Your task to perform on an android device: Open sound settings Image 0: 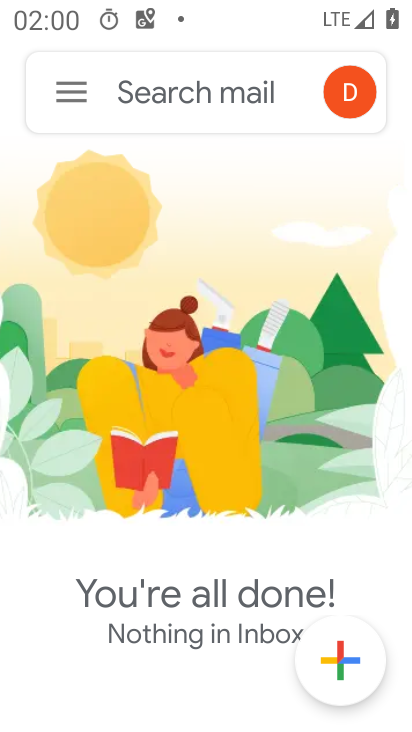
Step 0: click (69, 100)
Your task to perform on an android device: Open sound settings Image 1: 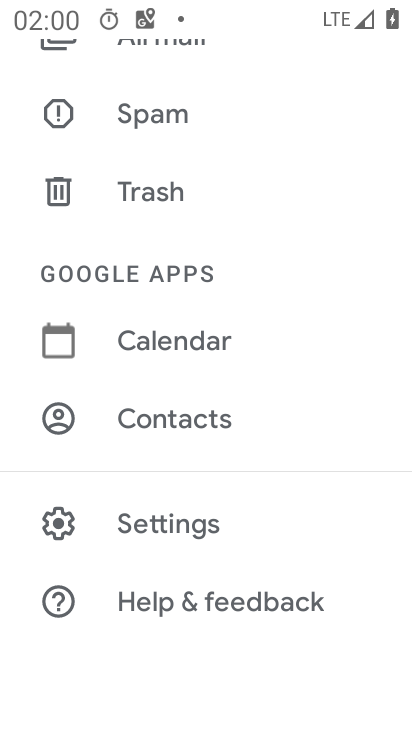
Step 1: press home button
Your task to perform on an android device: Open sound settings Image 2: 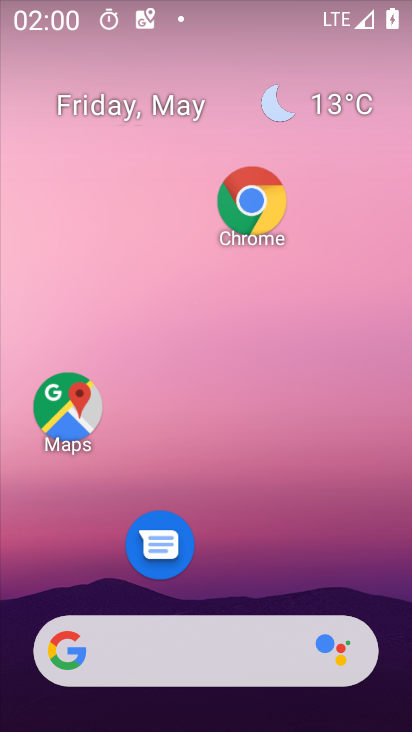
Step 2: drag from (153, 215) to (128, 113)
Your task to perform on an android device: Open sound settings Image 3: 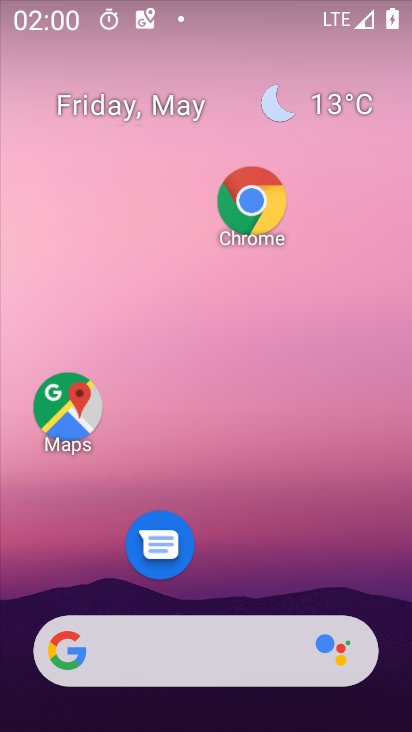
Step 3: drag from (217, 566) to (261, 221)
Your task to perform on an android device: Open sound settings Image 4: 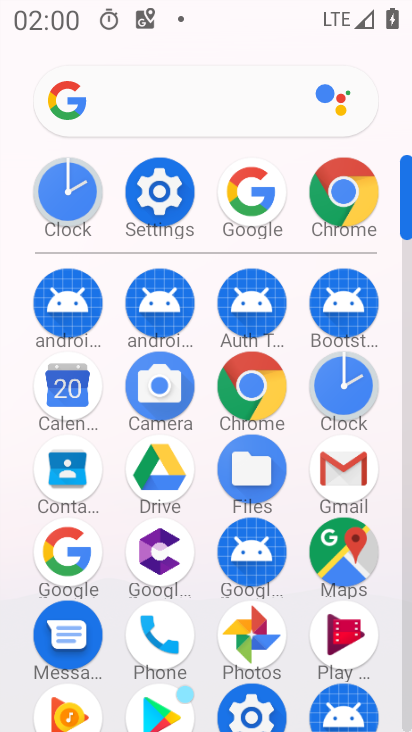
Step 4: click (156, 190)
Your task to perform on an android device: Open sound settings Image 5: 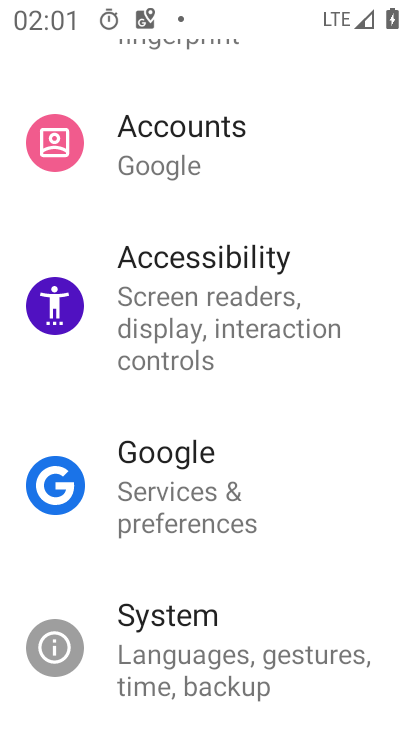
Step 5: drag from (193, 282) to (211, 610)
Your task to perform on an android device: Open sound settings Image 6: 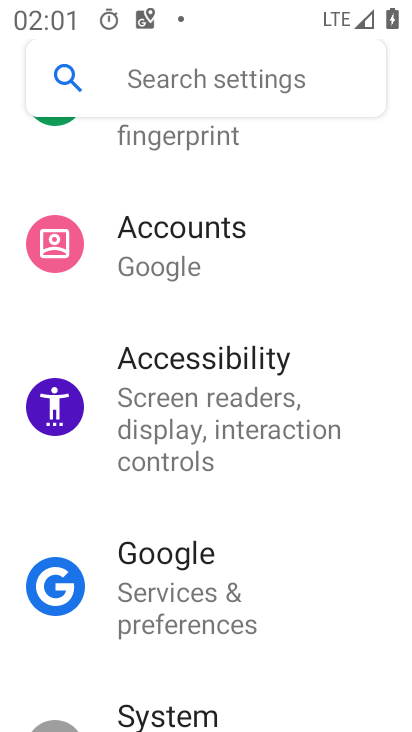
Step 6: drag from (186, 404) to (186, 588)
Your task to perform on an android device: Open sound settings Image 7: 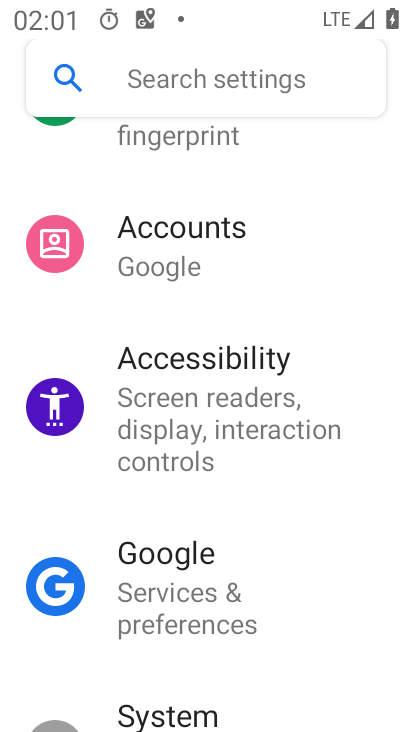
Step 7: drag from (194, 305) to (204, 457)
Your task to perform on an android device: Open sound settings Image 8: 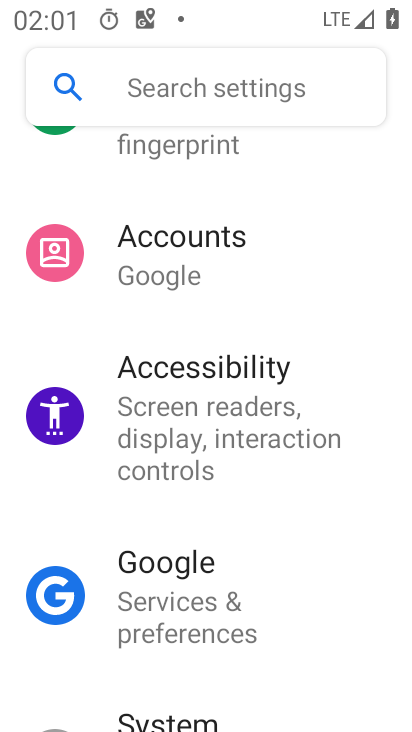
Step 8: drag from (196, 342) to (201, 551)
Your task to perform on an android device: Open sound settings Image 9: 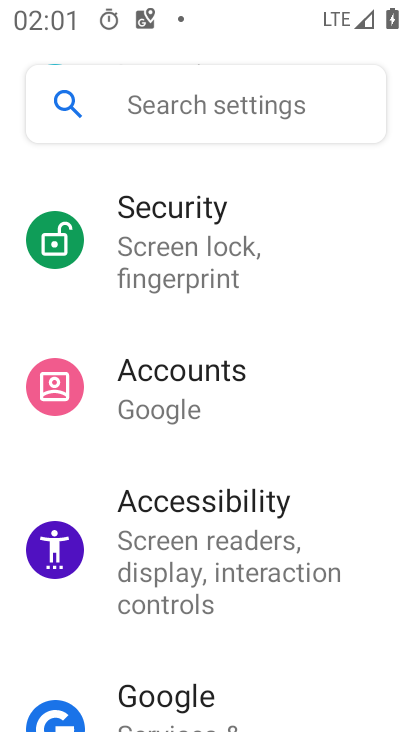
Step 9: drag from (220, 421) to (228, 469)
Your task to perform on an android device: Open sound settings Image 10: 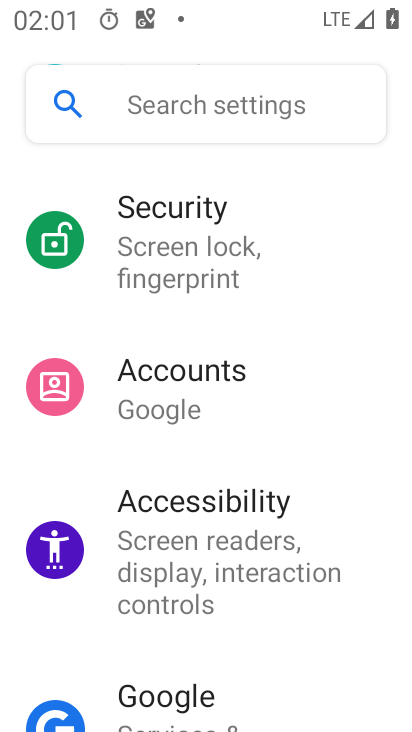
Step 10: drag from (220, 321) to (220, 612)
Your task to perform on an android device: Open sound settings Image 11: 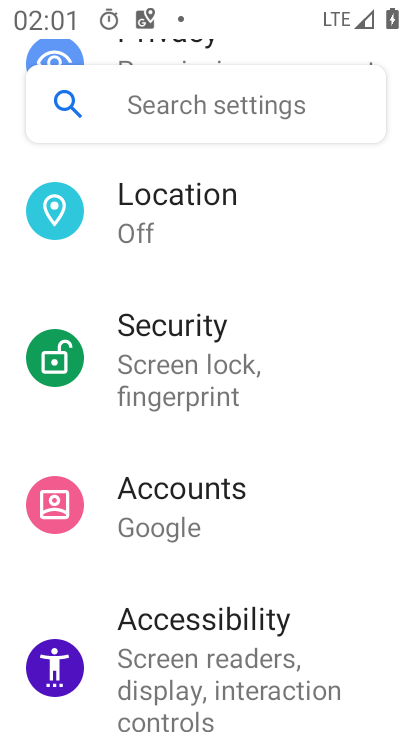
Step 11: drag from (176, 257) to (173, 489)
Your task to perform on an android device: Open sound settings Image 12: 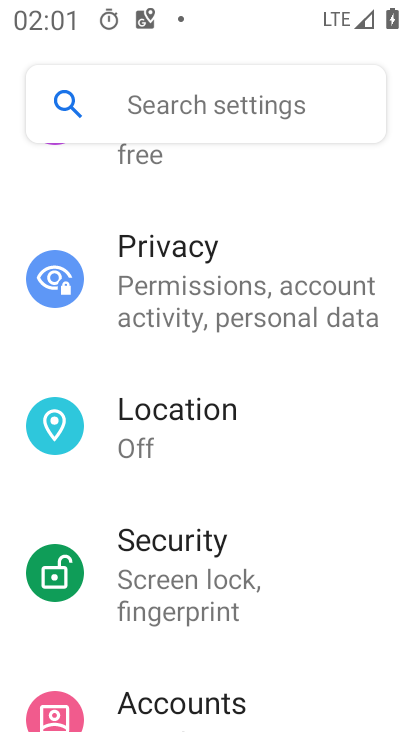
Step 12: click (189, 623)
Your task to perform on an android device: Open sound settings Image 13: 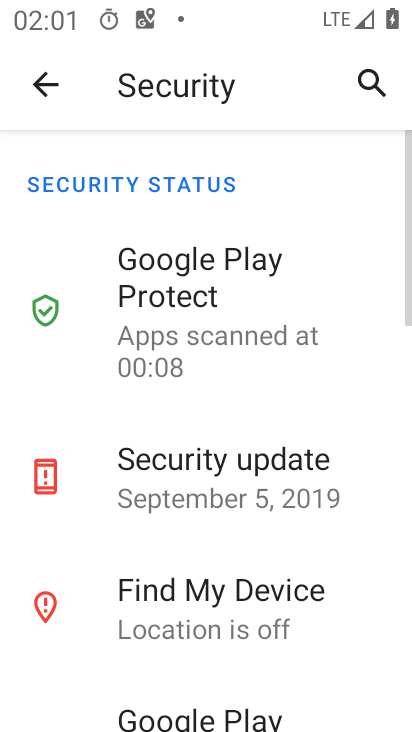
Step 13: click (37, 80)
Your task to perform on an android device: Open sound settings Image 14: 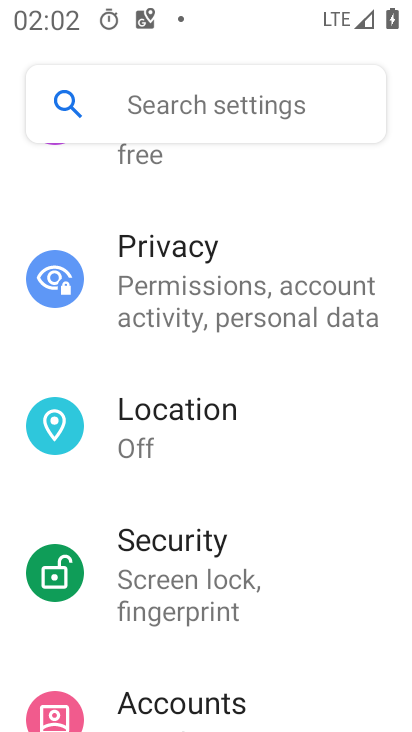
Step 14: drag from (185, 238) to (200, 450)
Your task to perform on an android device: Open sound settings Image 15: 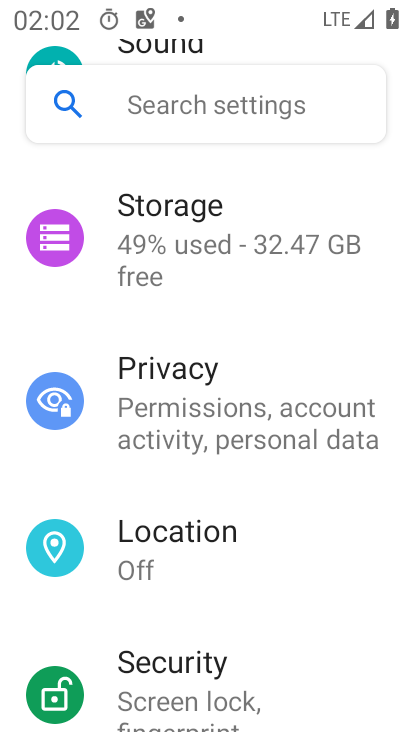
Step 15: click (203, 667)
Your task to perform on an android device: Open sound settings Image 16: 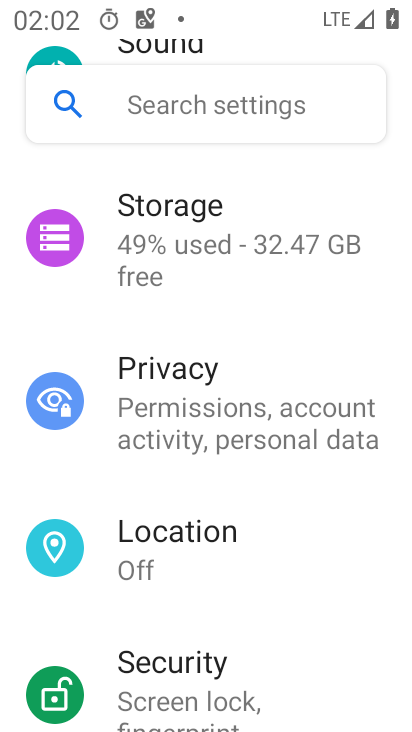
Step 16: click (241, 611)
Your task to perform on an android device: Open sound settings Image 17: 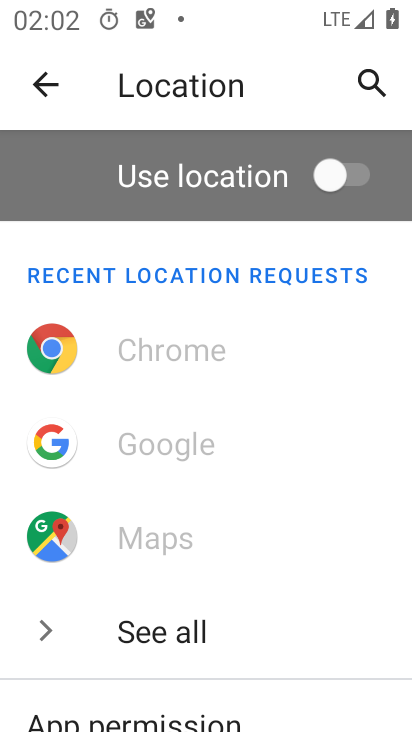
Step 17: click (31, 88)
Your task to perform on an android device: Open sound settings Image 18: 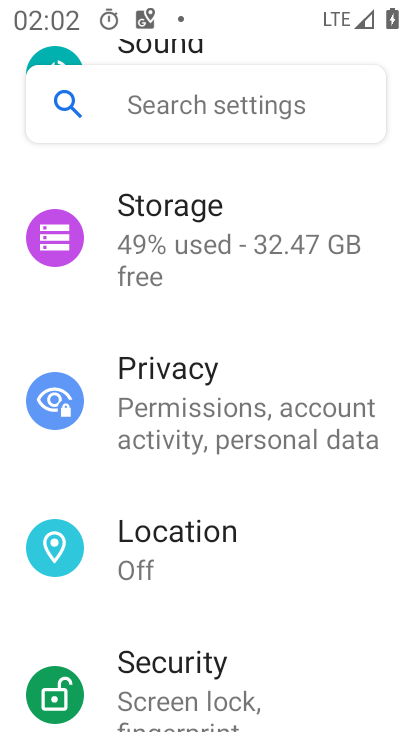
Step 18: drag from (202, 213) to (208, 598)
Your task to perform on an android device: Open sound settings Image 19: 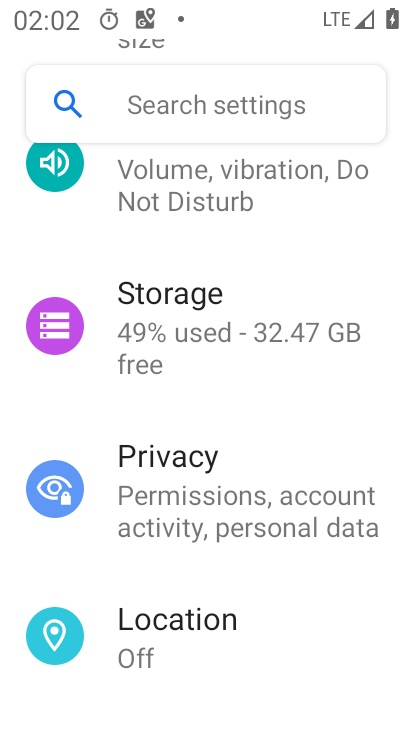
Step 19: drag from (240, 315) to (261, 518)
Your task to perform on an android device: Open sound settings Image 20: 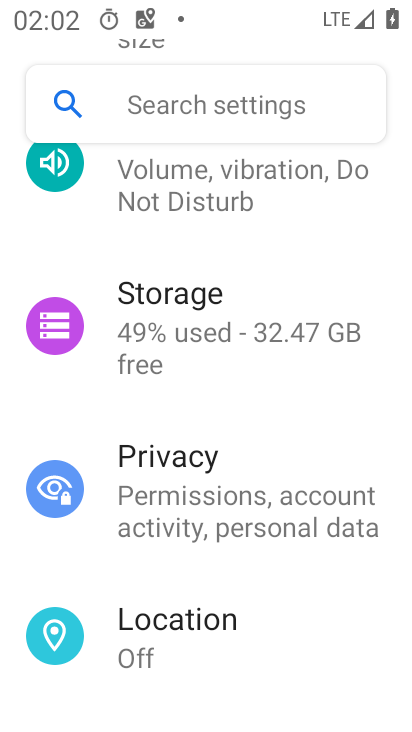
Step 20: drag from (274, 288) to (279, 510)
Your task to perform on an android device: Open sound settings Image 21: 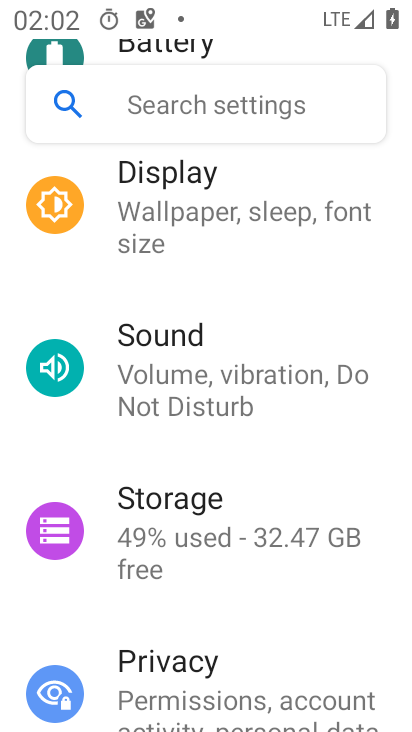
Step 21: drag from (272, 359) to (282, 508)
Your task to perform on an android device: Open sound settings Image 22: 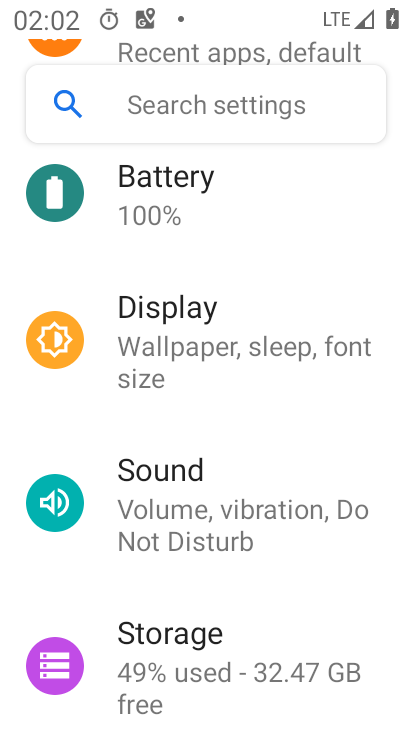
Step 22: drag from (265, 295) to (276, 379)
Your task to perform on an android device: Open sound settings Image 23: 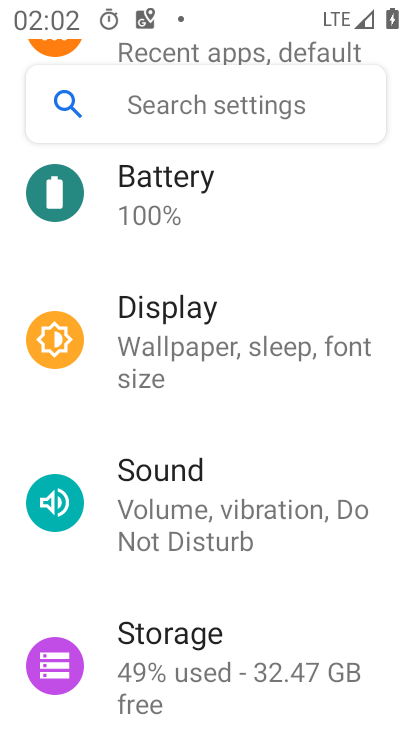
Step 23: click (192, 538)
Your task to perform on an android device: Open sound settings Image 24: 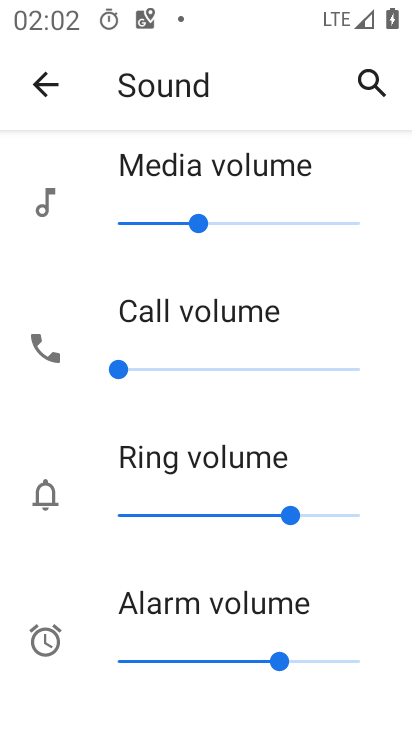
Step 24: task complete